Your task to perform on an android device: Open wifi settings Image 0: 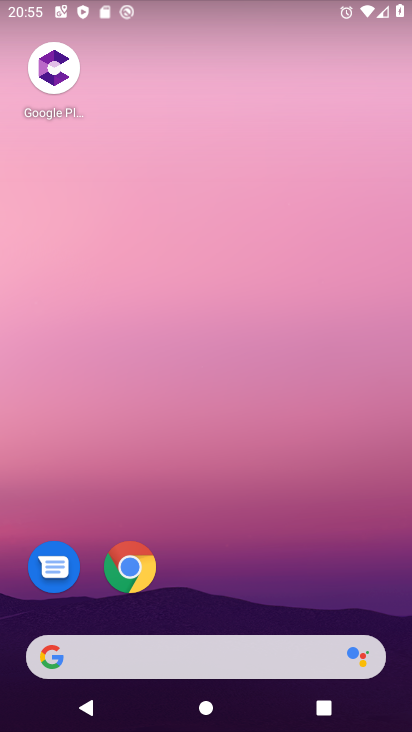
Step 0: drag from (210, 593) to (307, 7)
Your task to perform on an android device: Open wifi settings Image 1: 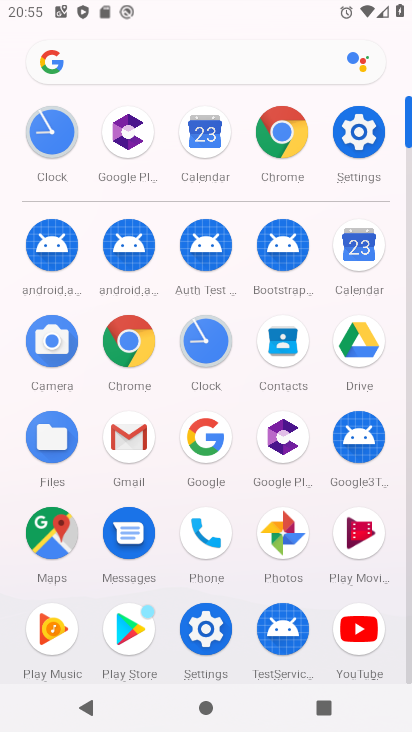
Step 1: click (370, 141)
Your task to perform on an android device: Open wifi settings Image 2: 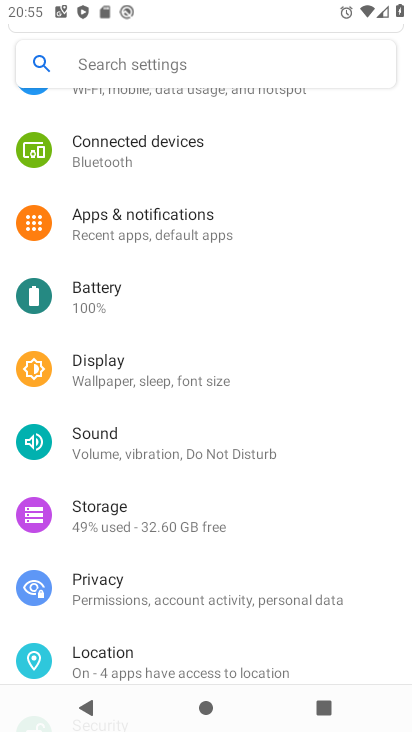
Step 2: drag from (260, 175) to (213, 519)
Your task to perform on an android device: Open wifi settings Image 3: 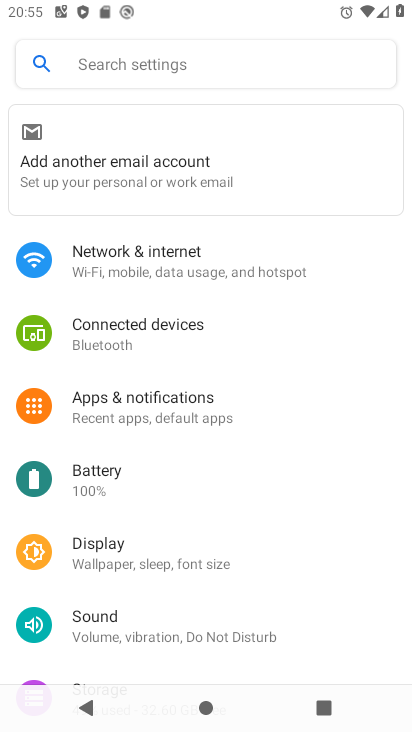
Step 3: click (200, 266)
Your task to perform on an android device: Open wifi settings Image 4: 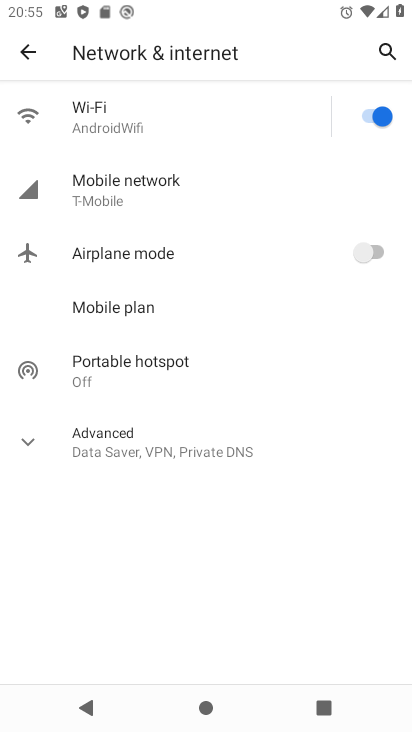
Step 4: click (126, 113)
Your task to perform on an android device: Open wifi settings Image 5: 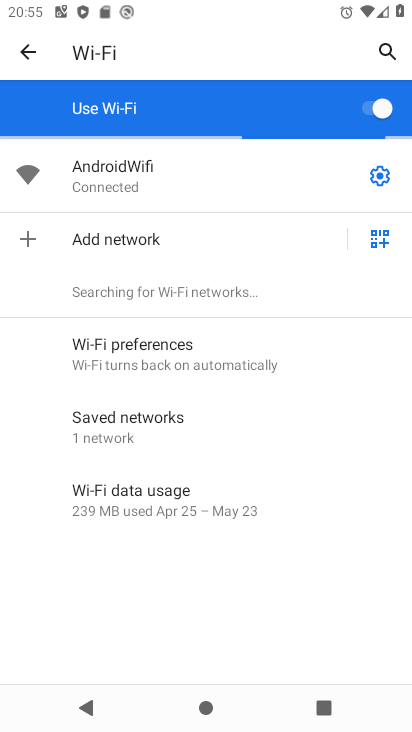
Step 5: task complete